Your task to perform on an android device: change the upload size in google photos Image 0: 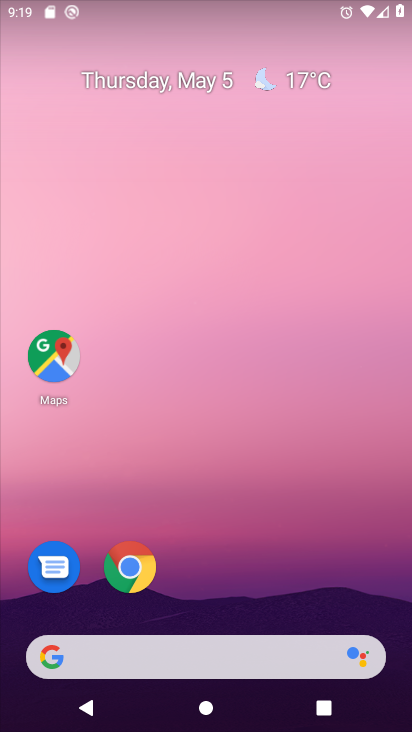
Step 0: drag from (282, 580) to (266, 38)
Your task to perform on an android device: change the upload size in google photos Image 1: 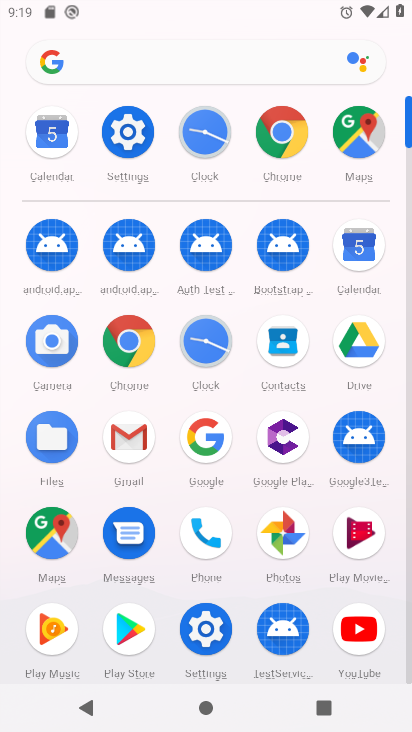
Step 1: click (278, 534)
Your task to perform on an android device: change the upload size in google photos Image 2: 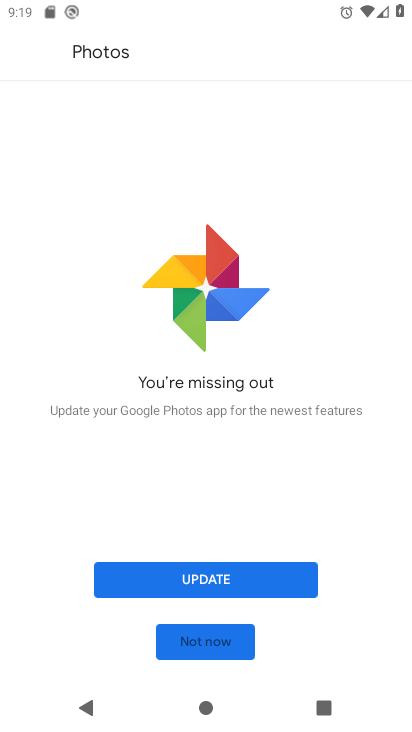
Step 2: click (222, 643)
Your task to perform on an android device: change the upload size in google photos Image 3: 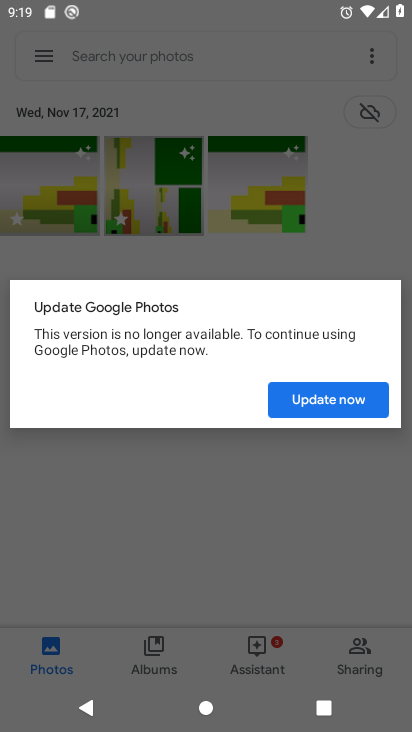
Step 3: click (343, 393)
Your task to perform on an android device: change the upload size in google photos Image 4: 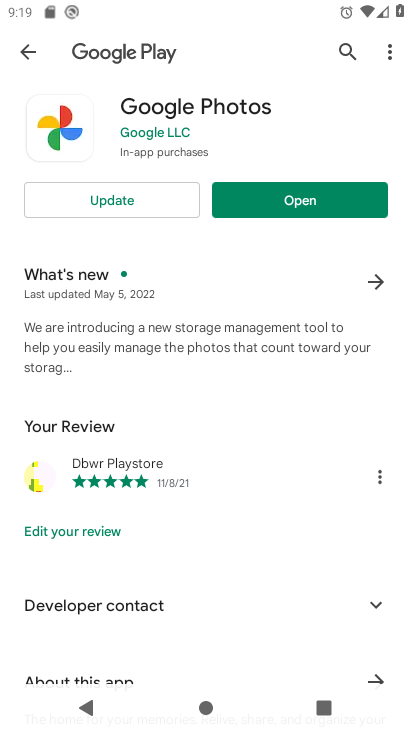
Step 4: click (109, 192)
Your task to perform on an android device: change the upload size in google photos Image 5: 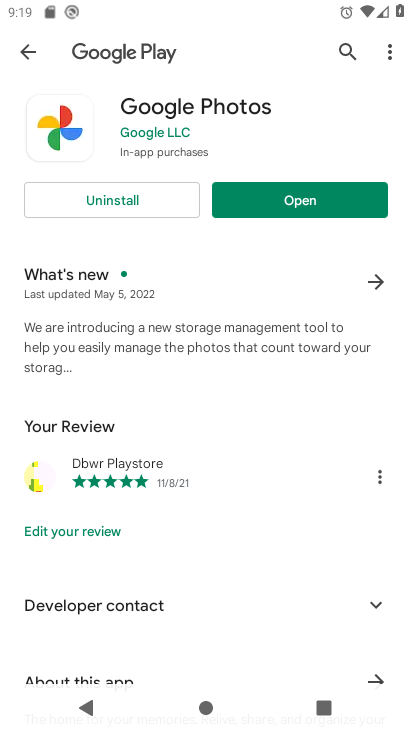
Step 5: click (250, 193)
Your task to perform on an android device: change the upload size in google photos Image 6: 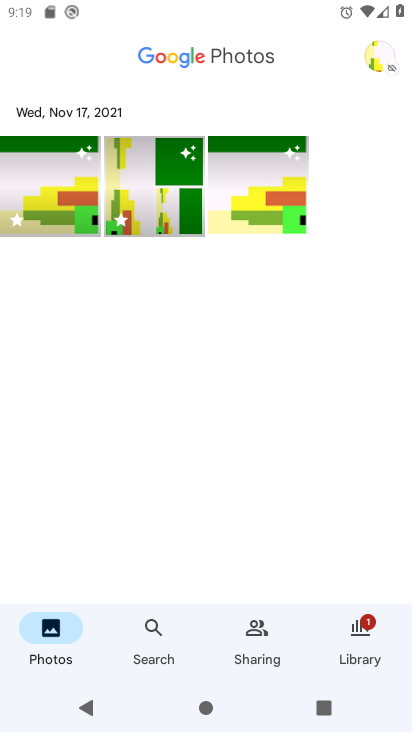
Step 6: click (381, 47)
Your task to perform on an android device: change the upload size in google photos Image 7: 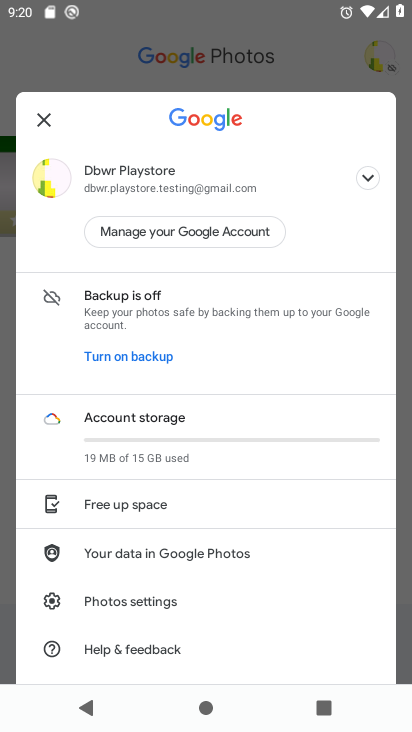
Step 7: click (208, 304)
Your task to perform on an android device: change the upload size in google photos Image 8: 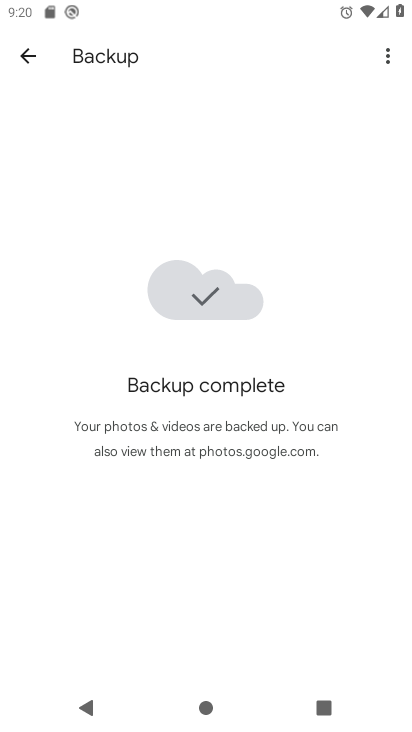
Step 8: click (29, 53)
Your task to perform on an android device: change the upload size in google photos Image 9: 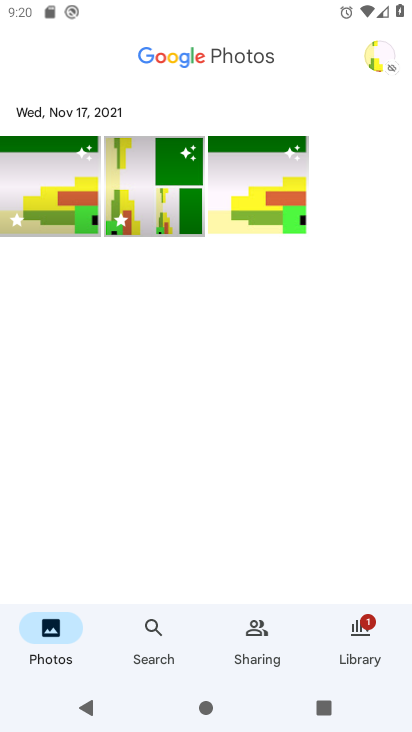
Step 9: click (378, 52)
Your task to perform on an android device: change the upload size in google photos Image 10: 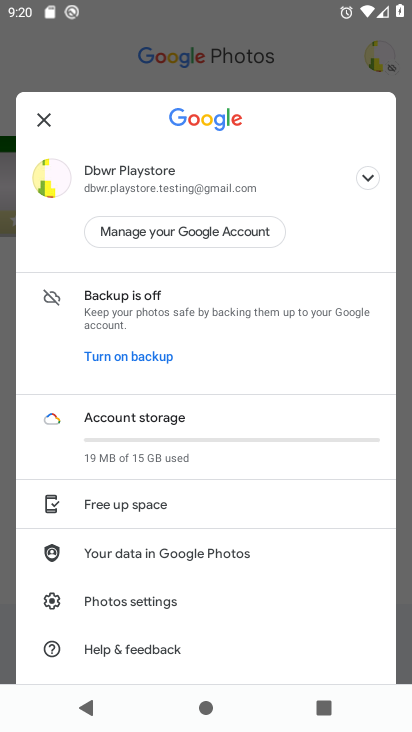
Step 10: click (141, 599)
Your task to perform on an android device: change the upload size in google photos Image 11: 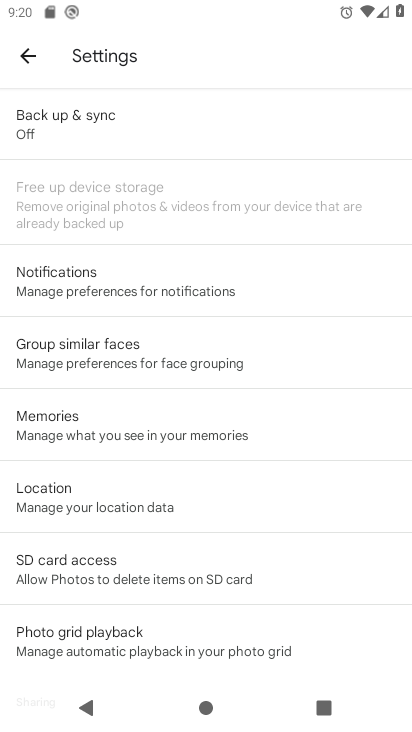
Step 11: click (94, 112)
Your task to perform on an android device: change the upload size in google photos Image 12: 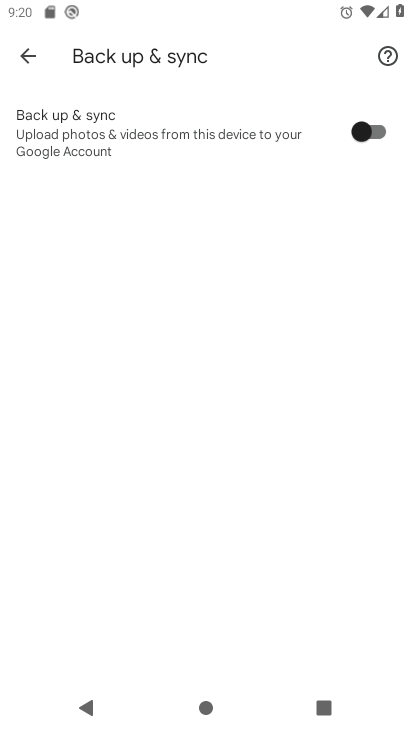
Step 12: click (380, 122)
Your task to perform on an android device: change the upload size in google photos Image 13: 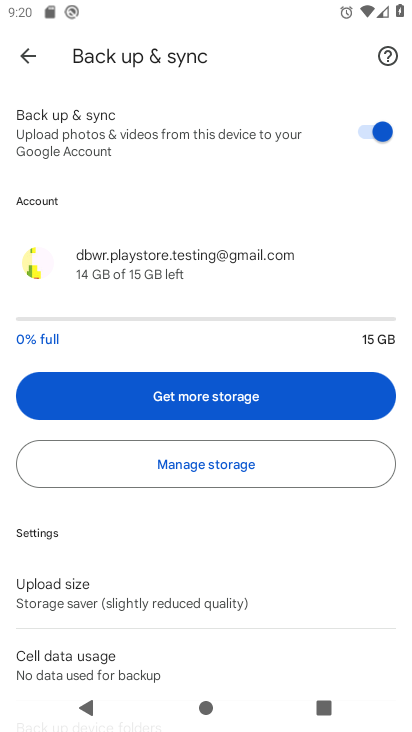
Step 13: click (145, 597)
Your task to perform on an android device: change the upload size in google photos Image 14: 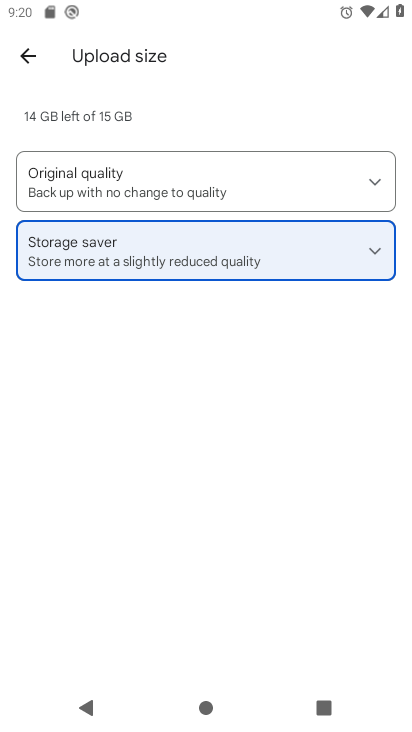
Step 14: click (193, 183)
Your task to perform on an android device: change the upload size in google photos Image 15: 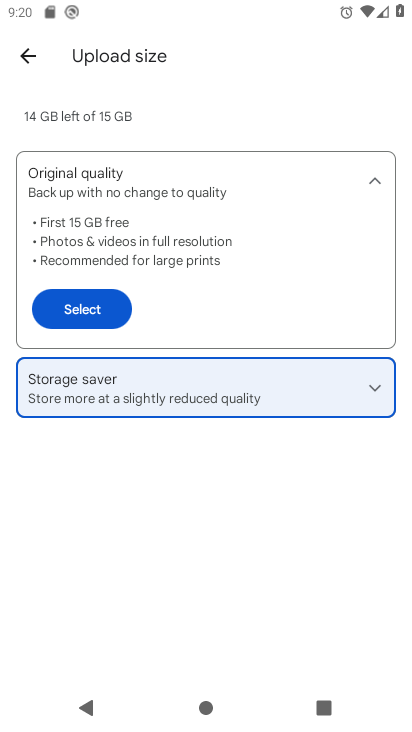
Step 15: click (107, 310)
Your task to perform on an android device: change the upload size in google photos Image 16: 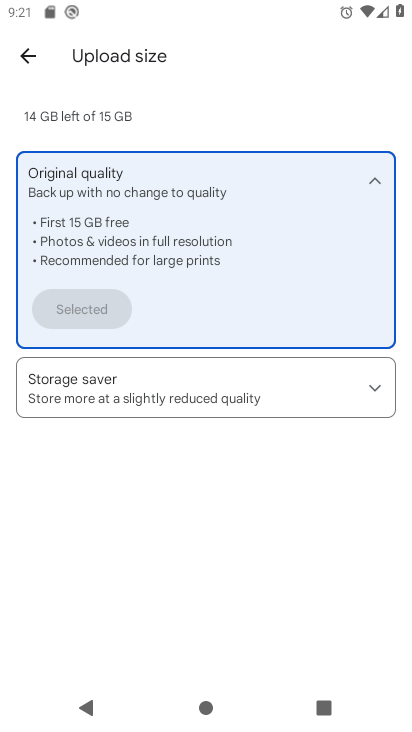
Step 16: task complete